Your task to perform on an android device: Open notification settings Image 0: 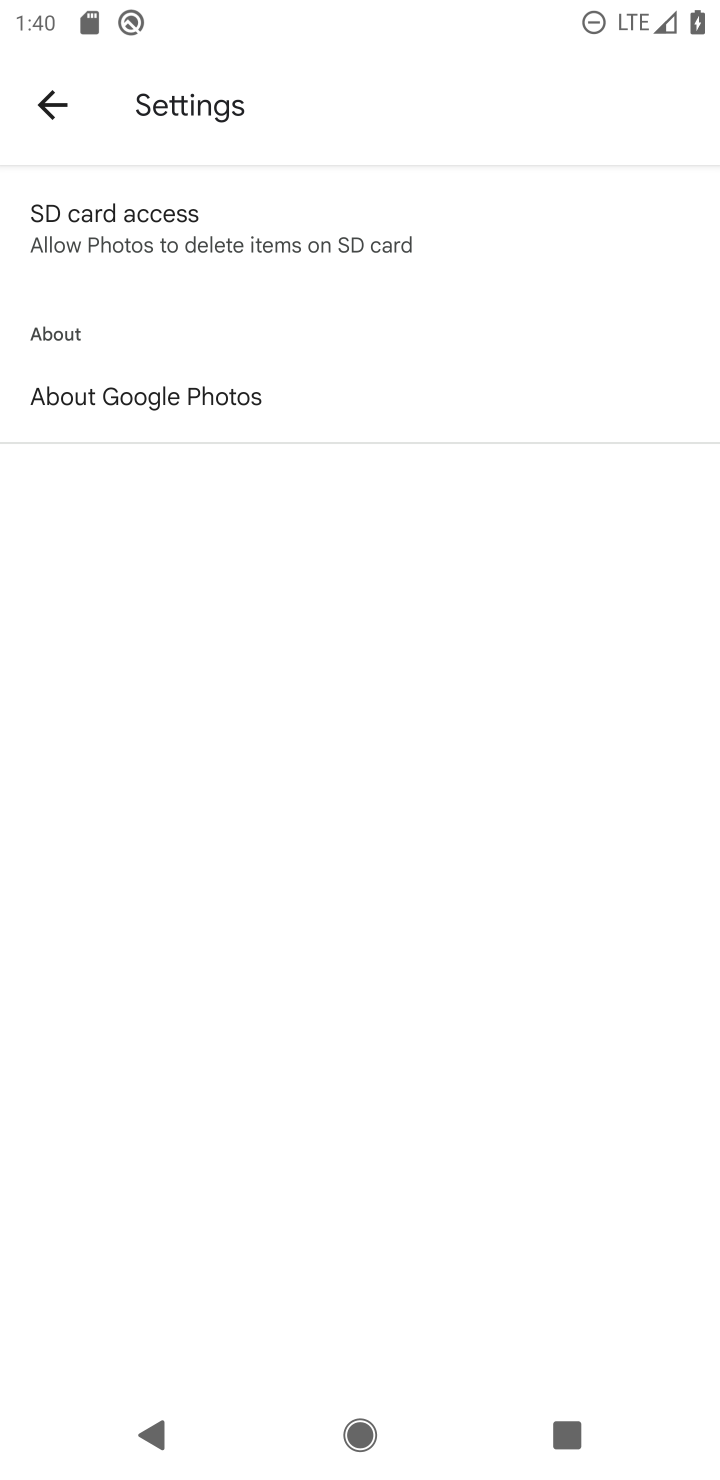
Step 0: press home button
Your task to perform on an android device: Open notification settings Image 1: 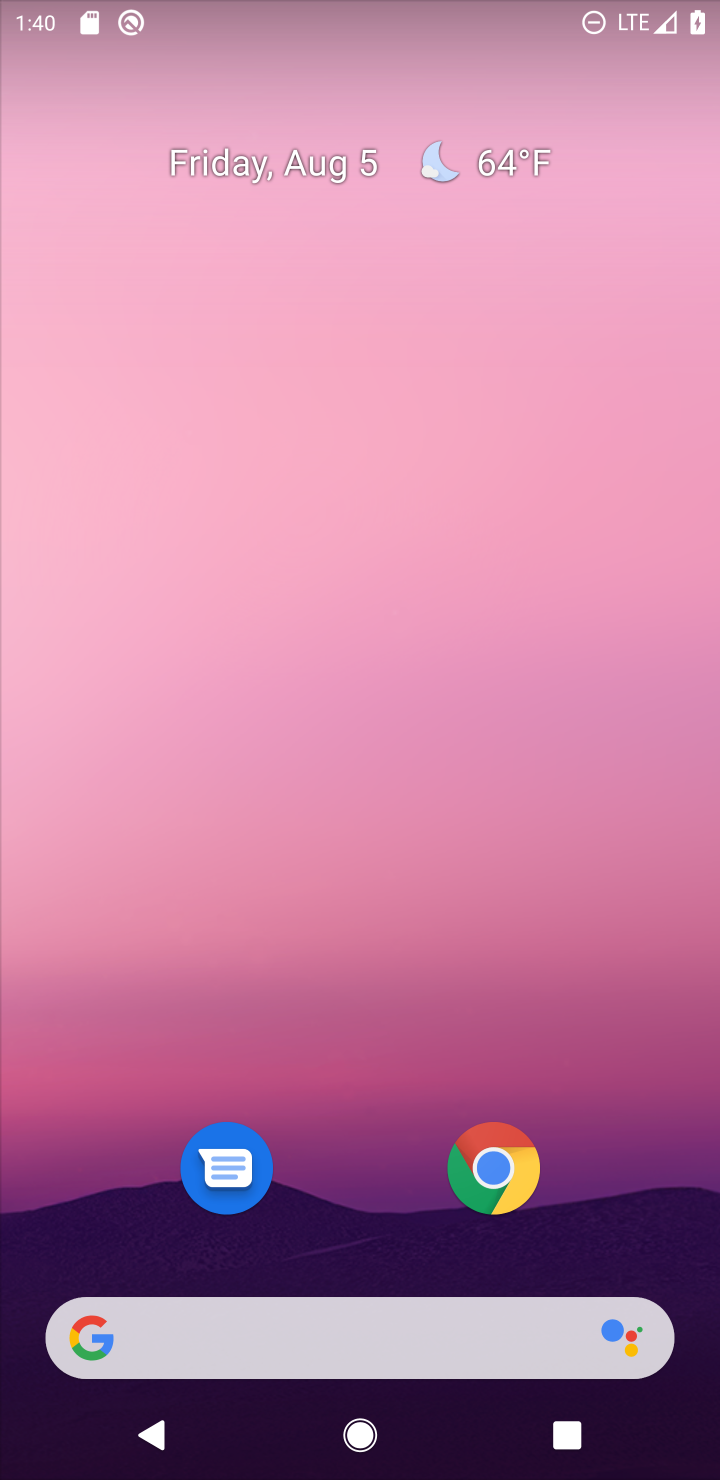
Step 1: drag from (652, 1214) to (280, 150)
Your task to perform on an android device: Open notification settings Image 2: 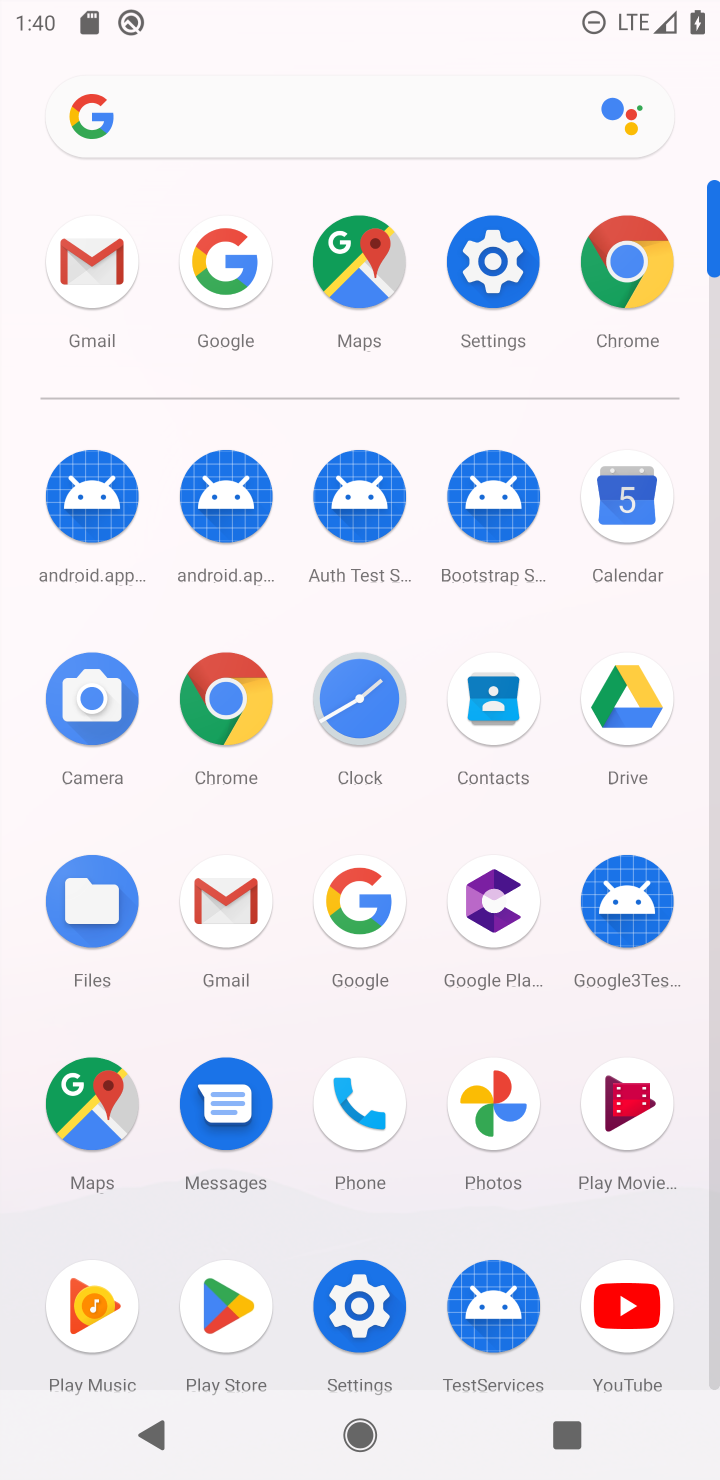
Step 2: click (340, 1311)
Your task to perform on an android device: Open notification settings Image 3: 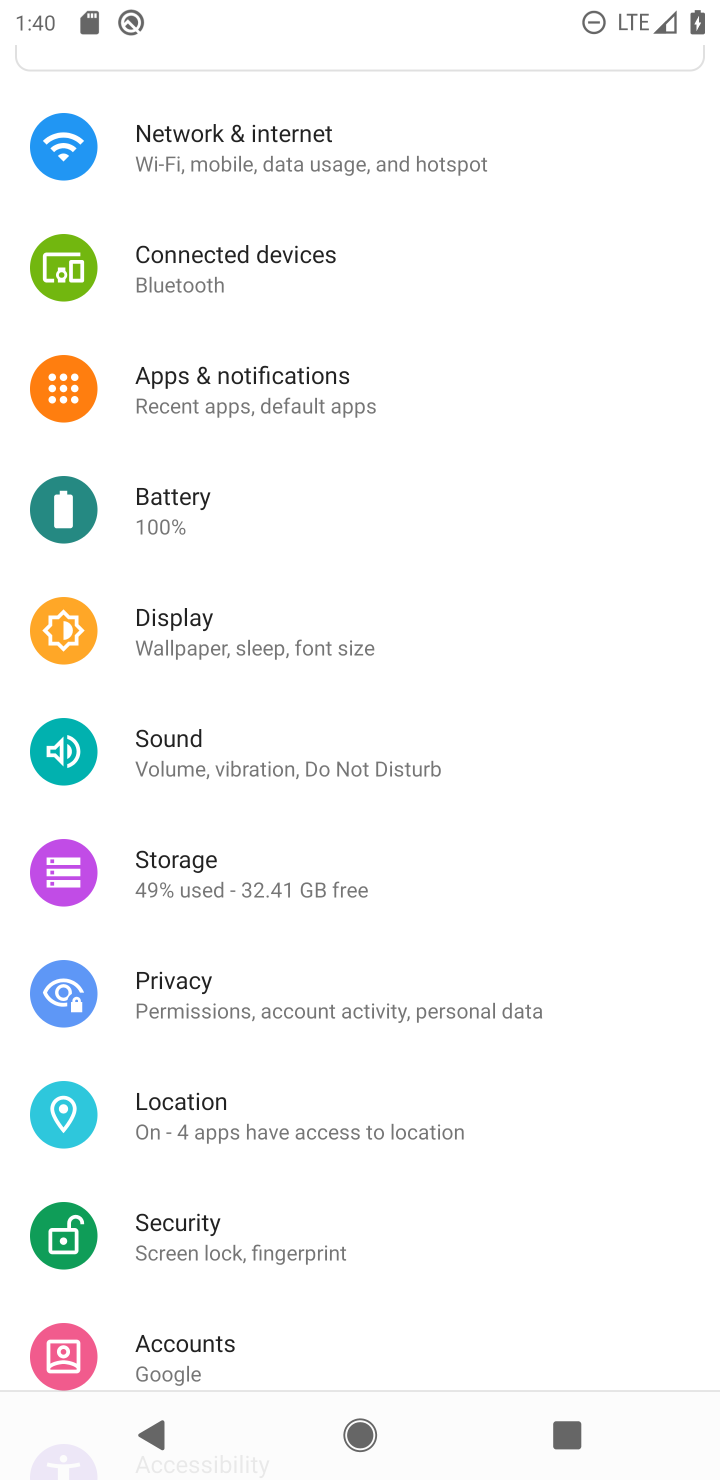
Step 3: click (289, 387)
Your task to perform on an android device: Open notification settings Image 4: 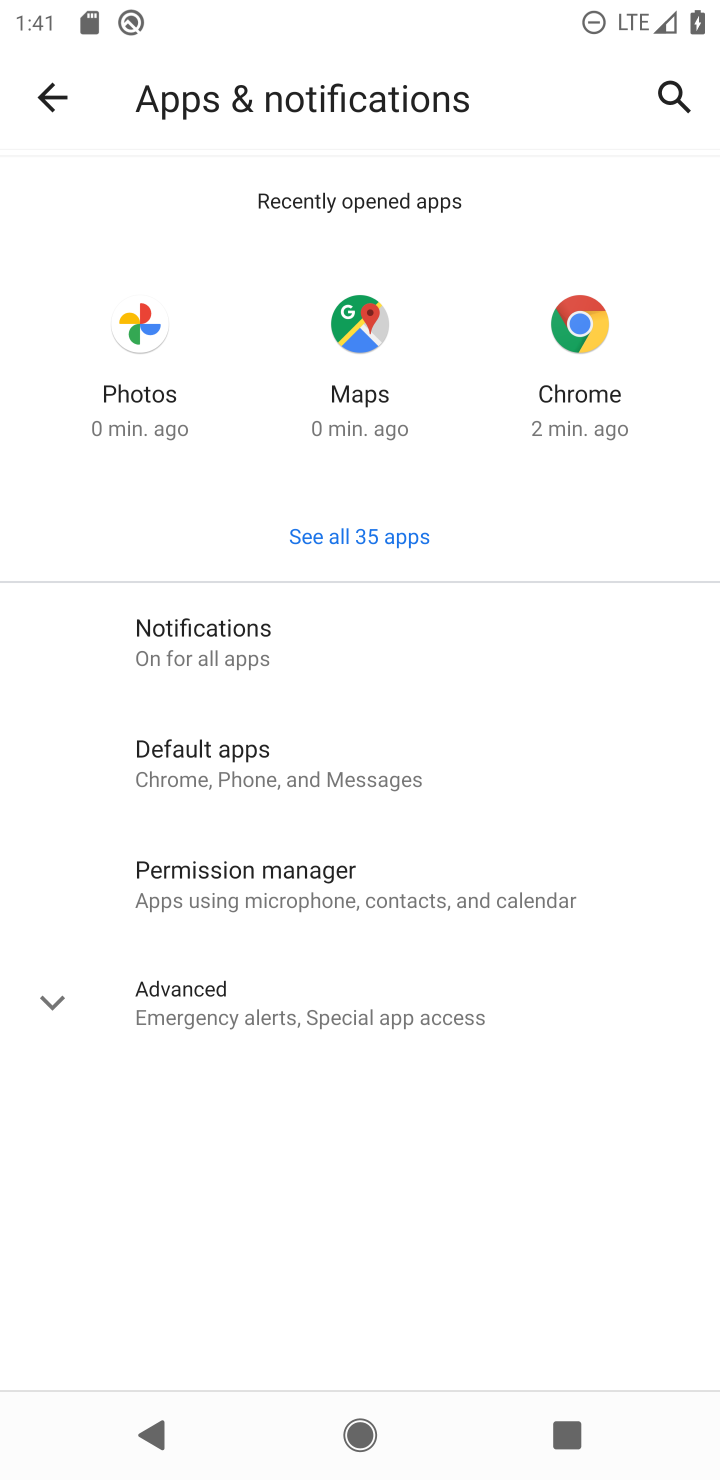
Step 4: click (302, 650)
Your task to perform on an android device: Open notification settings Image 5: 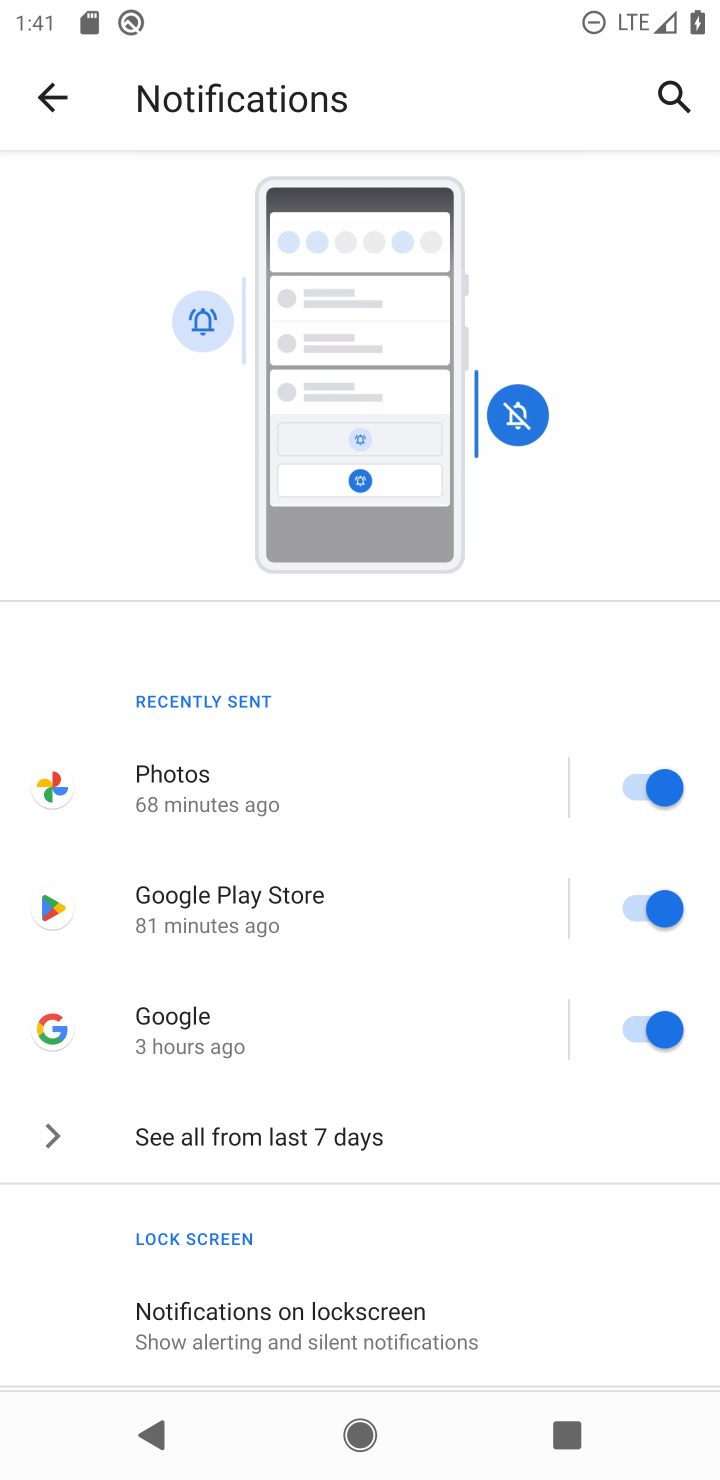
Step 5: task complete